Your task to perform on an android device: turn on the 24-hour format for clock Image 0: 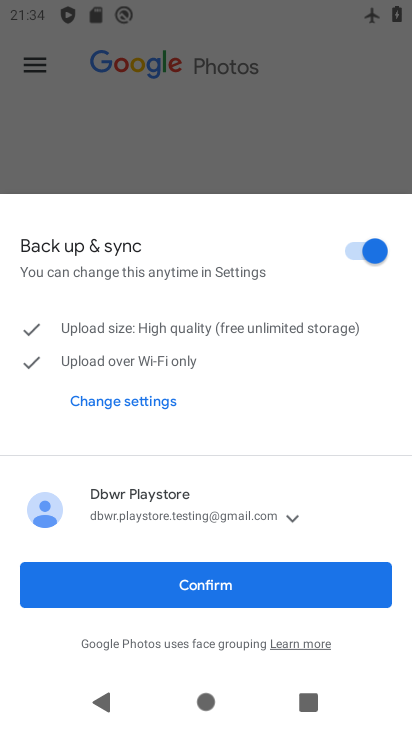
Step 0: press home button
Your task to perform on an android device: turn on the 24-hour format for clock Image 1: 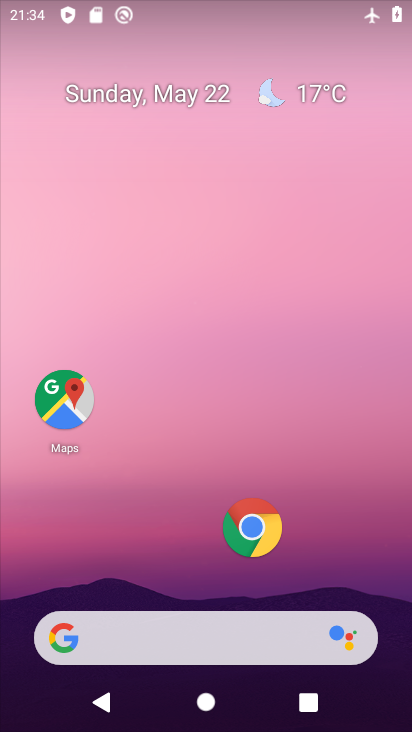
Step 1: drag from (194, 553) to (162, 76)
Your task to perform on an android device: turn on the 24-hour format for clock Image 2: 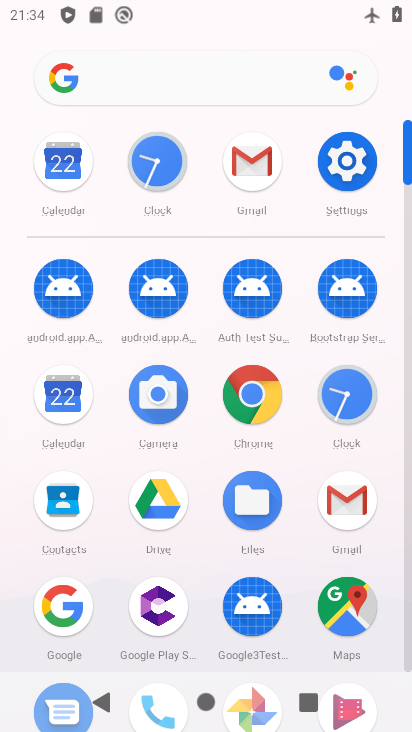
Step 2: click (357, 405)
Your task to perform on an android device: turn on the 24-hour format for clock Image 3: 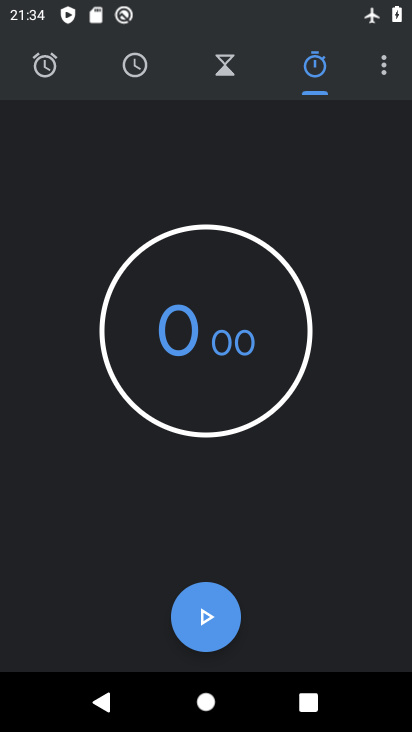
Step 3: click (382, 68)
Your task to perform on an android device: turn on the 24-hour format for clock Image 4: 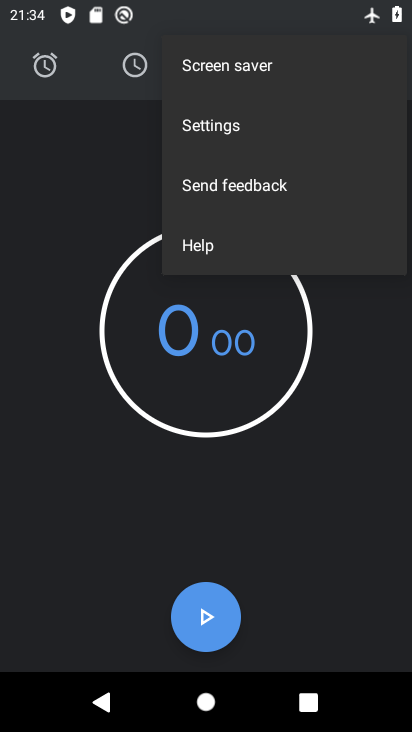
Step 4: click (225, 120)
Your task to perform on an android device: turn on the 24-hour format for clock Image 5: 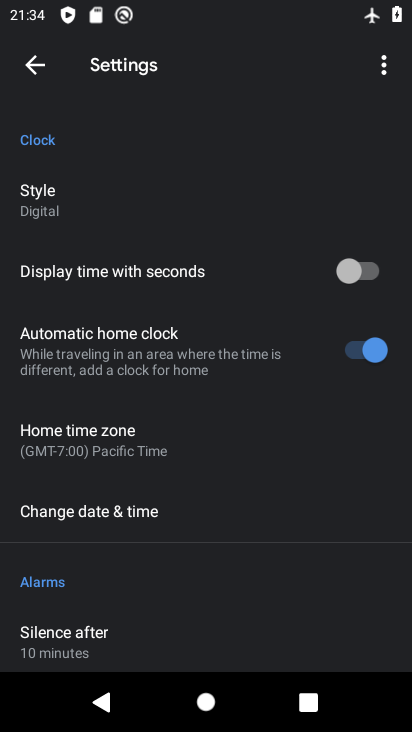
Step 5: click (119, 492)
Your task to perform on an android device: turn on the 24-hour format for clock Image 6: 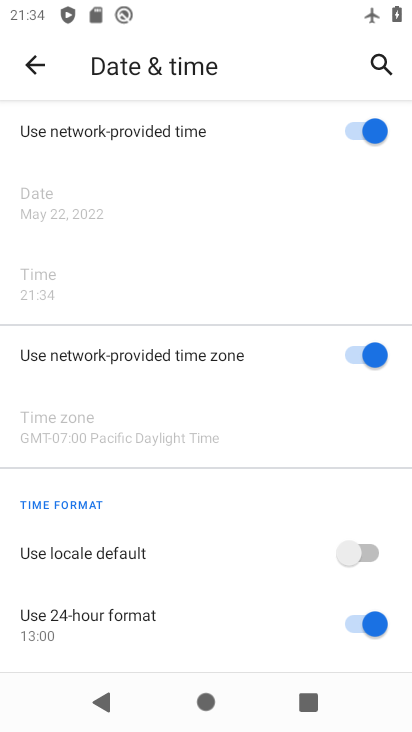
Step 6: task complete